Your task to perform on an android device: Search for coffee table on Crate & Barrel Image 0: 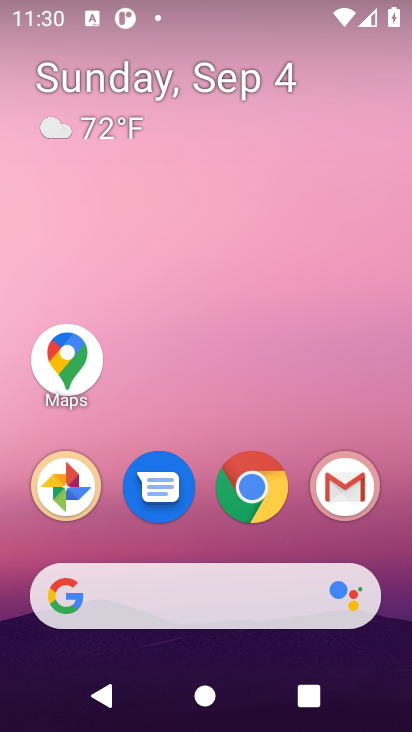
Step 0: click (240, 473)
Your task to perform on an android device: Search for coffee table on Crate & Barrel Image 1: 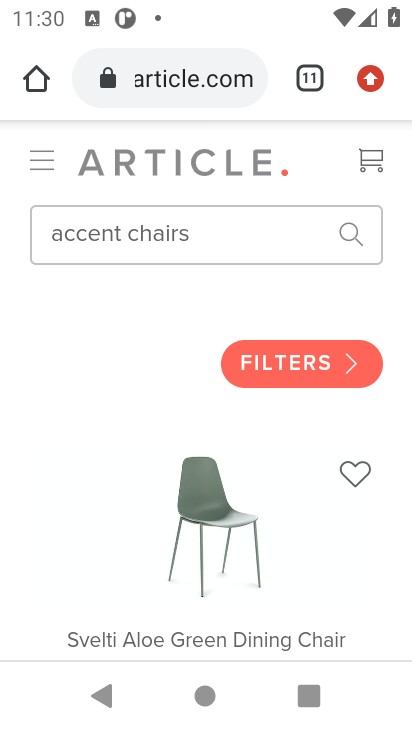
Step 1: click (188, 71)
Your task to perform on an android device: Search for coffee table on Crate & Barrel Image 2: 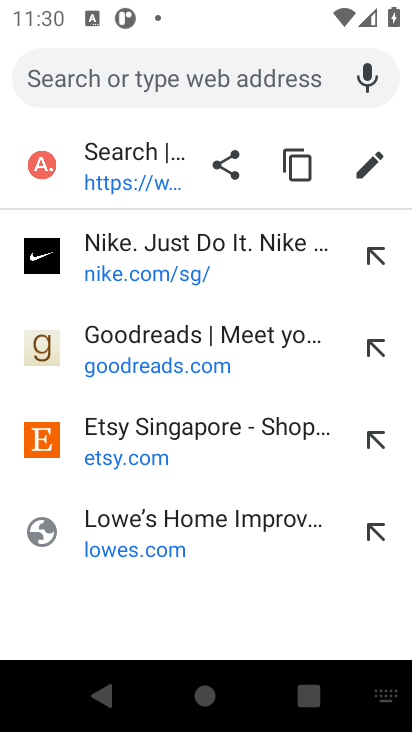
Step 2: click (188, 71)
Your task to perform on an android device: Search for coffee table on Crate & Barrel Image 3: 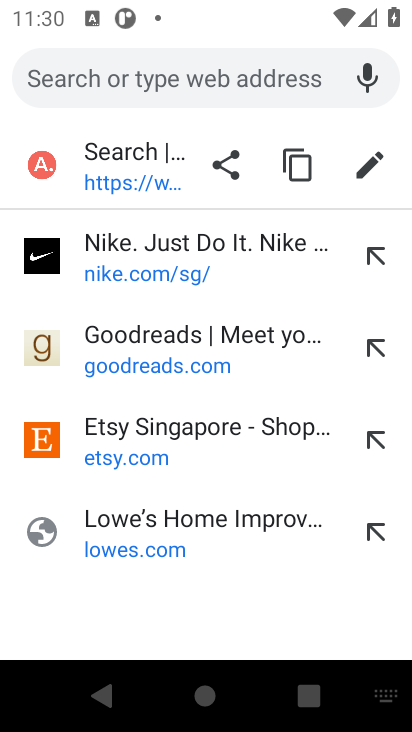
Step 3: type " coffee table on Crate & Barrel"
Your task to perform on an android device: Search for coffee table on Crate & Barrel Image 4: 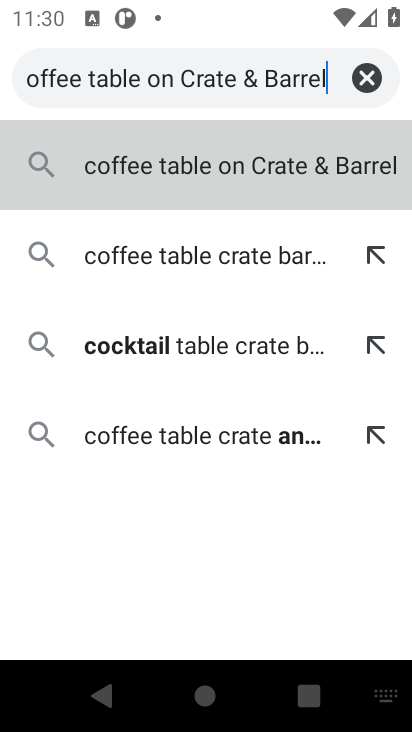
Step 4: click (267, 135)
Your task to perform on an android device: Search for coffee table on Crate & Barrel Image 5: 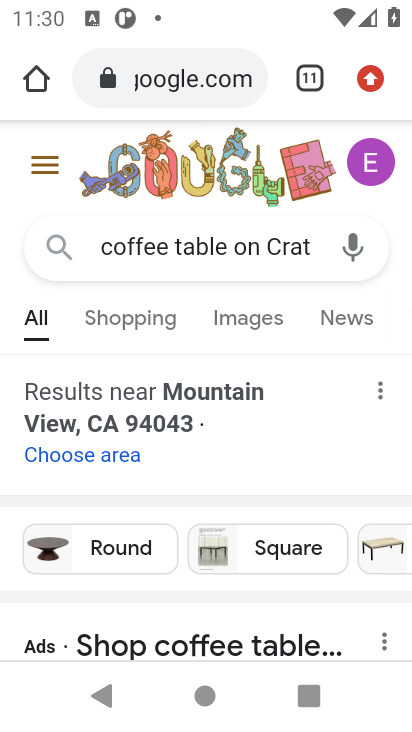
Step 5: task complete